Your task to perform on an android device: change the clock display to digital Image 0: 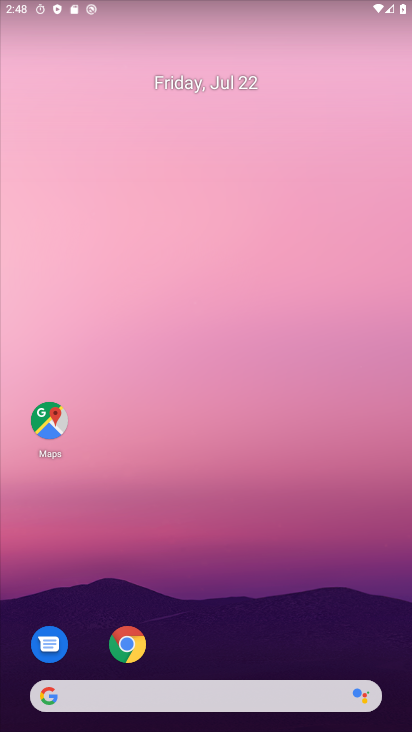
Step 0: press home button
Your task to perform on an android device: change the clock display to digital Image 1: 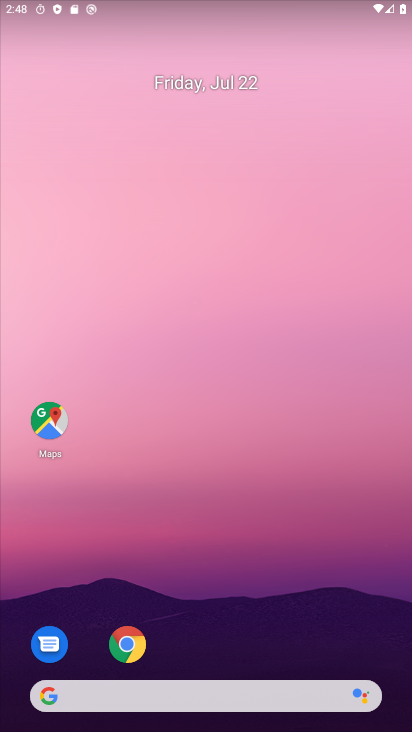
Step 1: drag from (215, 646) to (164, 112)
Your task to perform on an android device: change the clock display to digital Image 2: 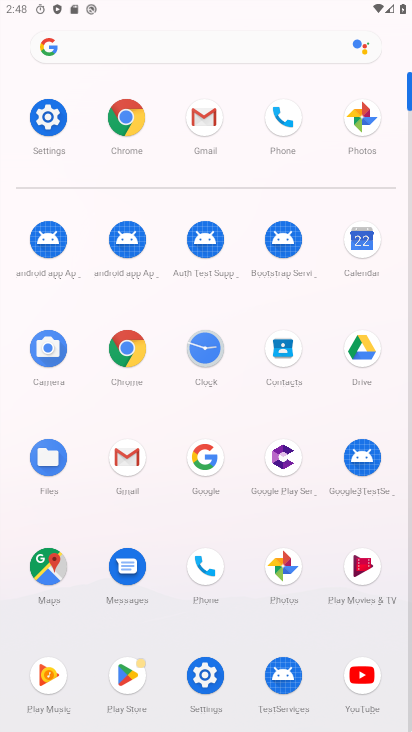
Step 2: click (206, 361)
Your task to perform on an android device: change the clock display to digital Image 3: 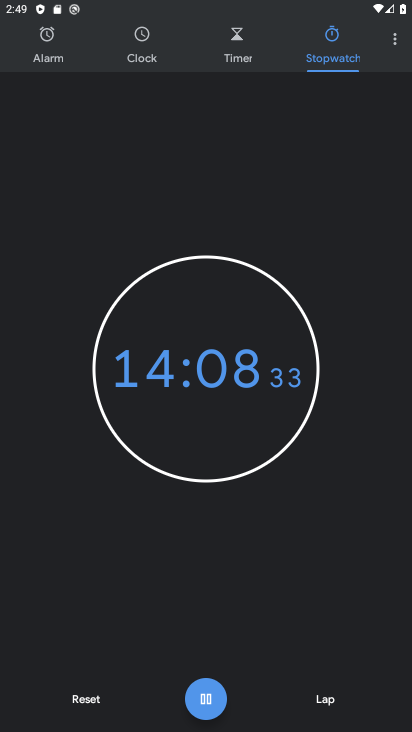
Step 3: click (402, 48)
Your task to perform on an android device: change the clock display to digital Image 4: 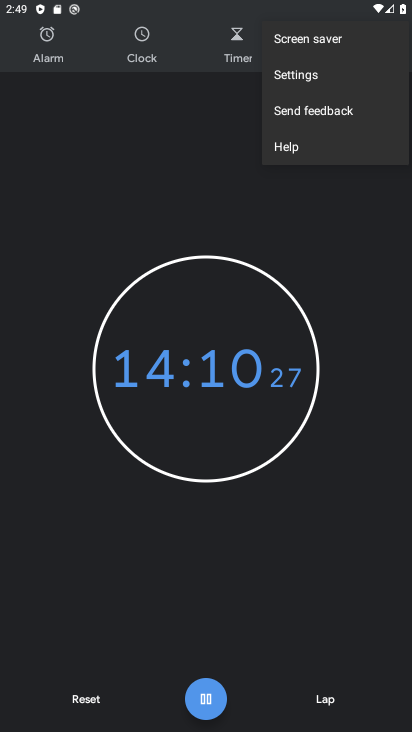
Step 4: click (312, 71)
Your task to perform on an android device: change the clock display to digital Image 5: 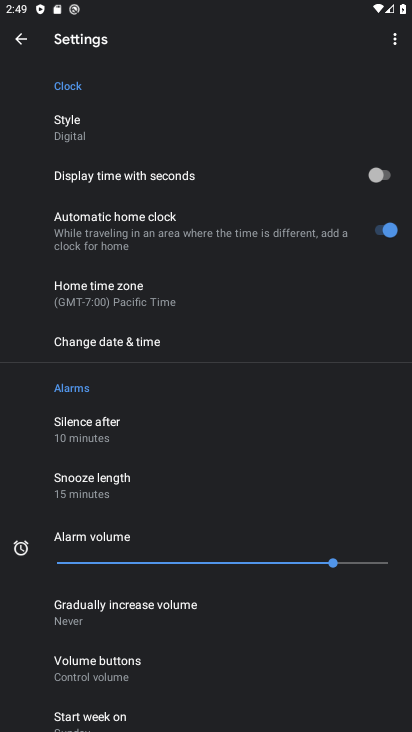
Step 5: click (65, 116)
Your task to perform on an android device: change the clock display to digital Image 6: 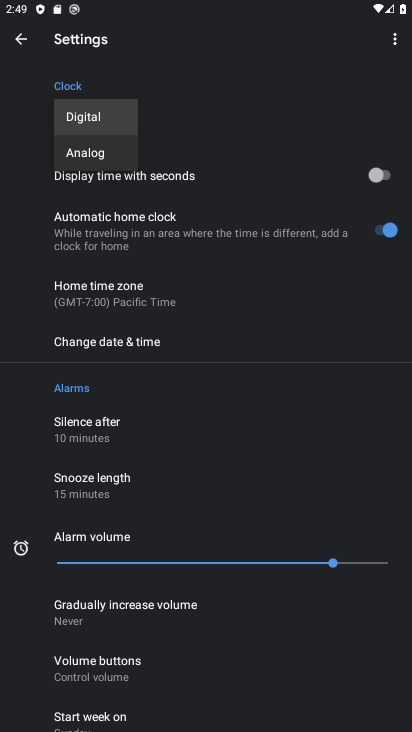
Step 6: task complete